Your task to perform on an android device: toggle sleep mode Image 0: 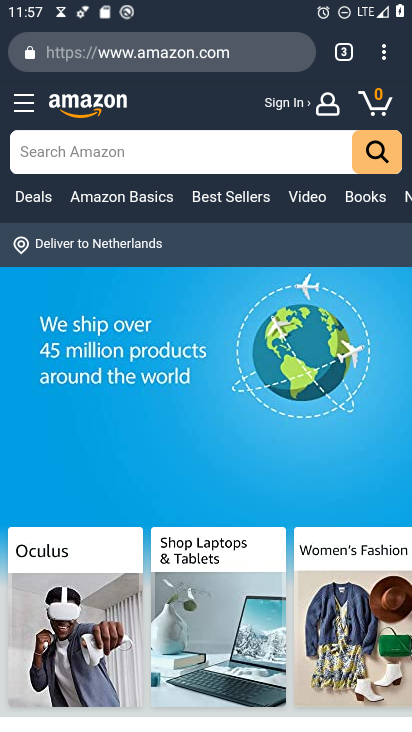
Step 0: press home button
Your task to perform on an android device: toggle sleep mode Image 1: 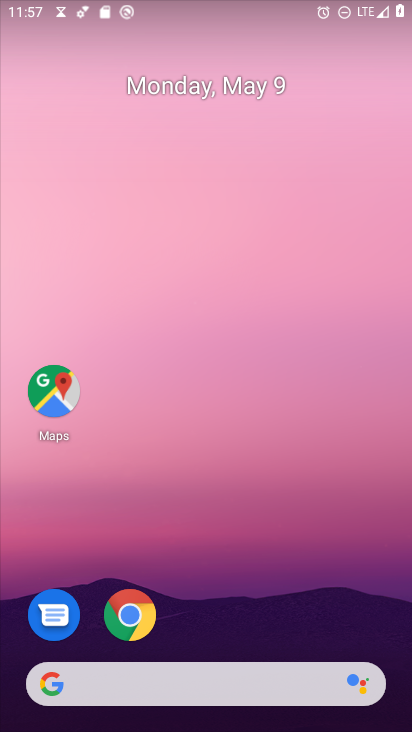
Step 1: drag from (205, 726) to (205, 146)
Your task to perform on an android device: toggle sleep mode Image 2: 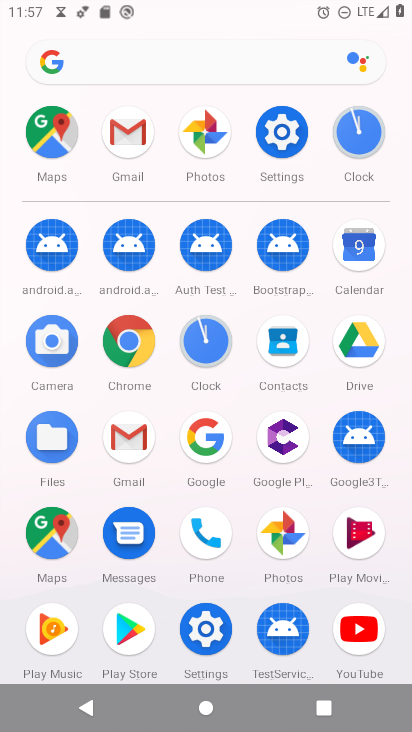
Step 2: click (276, 135)
Your task to perform on an android device: toggle sleep mode Image 3: 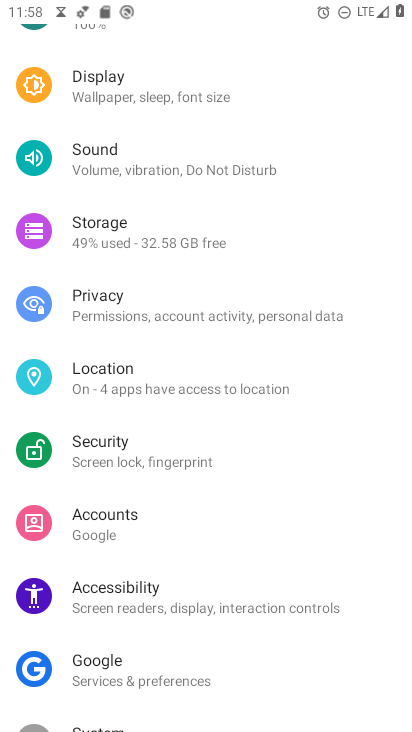
Step 3: task complete